Your task to perform on an android device: change notification settings in the gmail app Image 0: 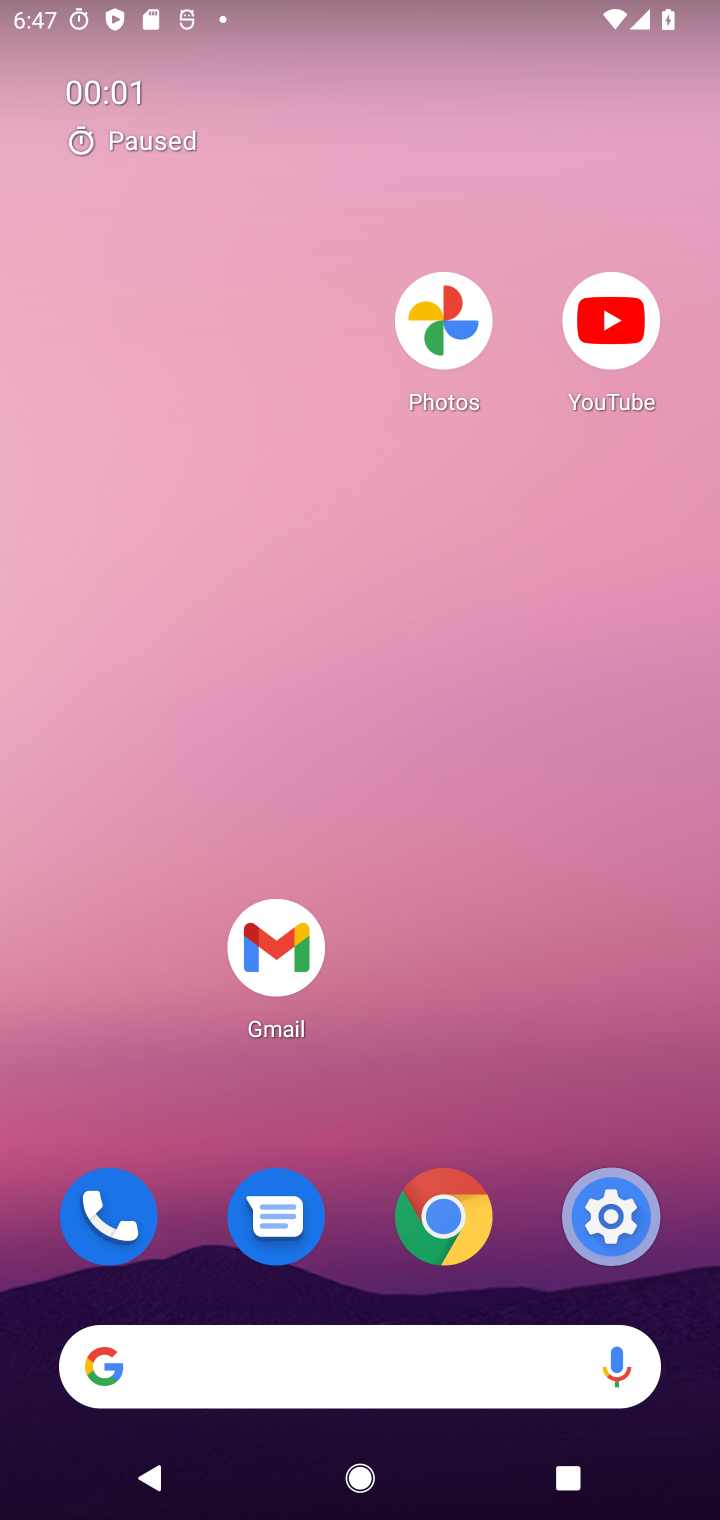
Step 0: drag from (599, 1086) to (495, 246)
Your task to perform on an android device: change notification settings in the gmail app Image 1: 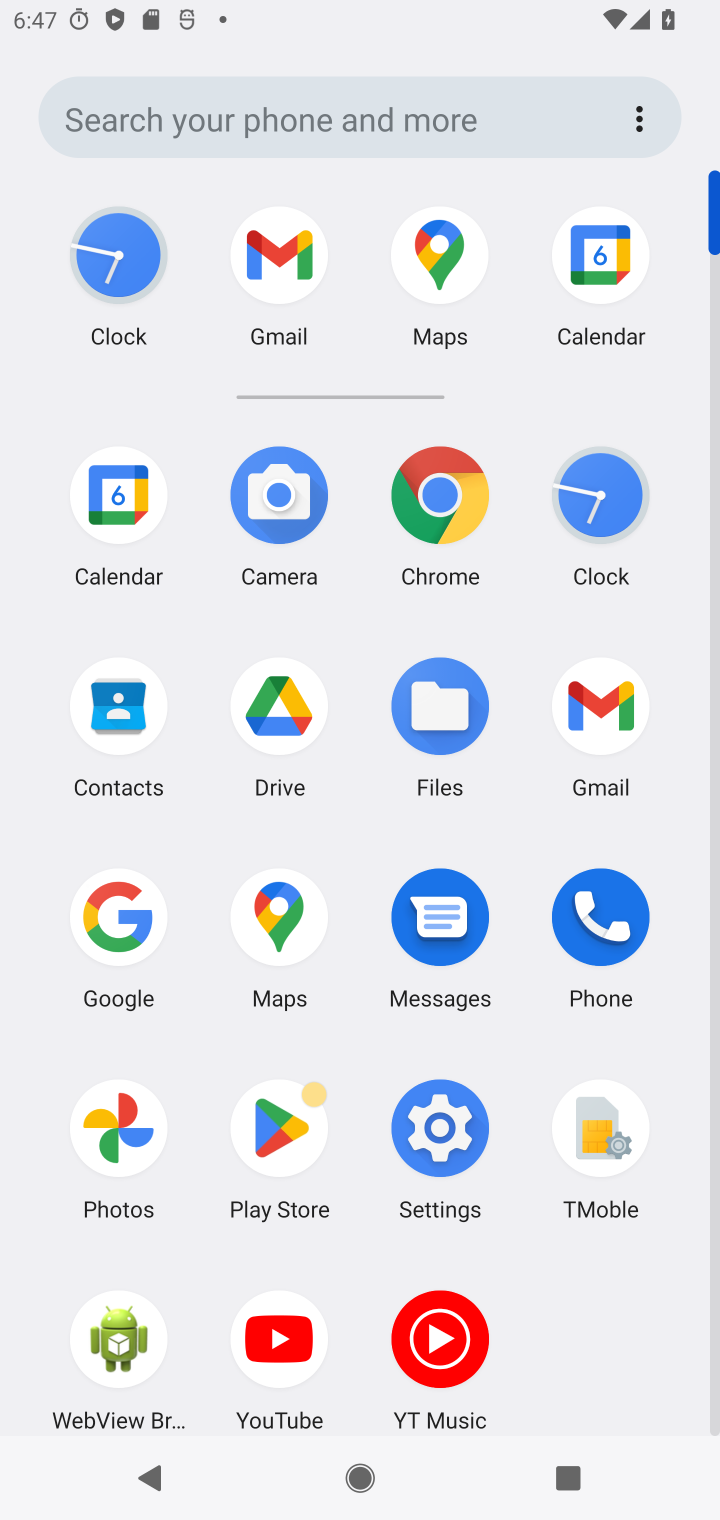
Step 1: click (594, 720)
Your task to perform on an android device: change notification settings in the gmail app Image 2: 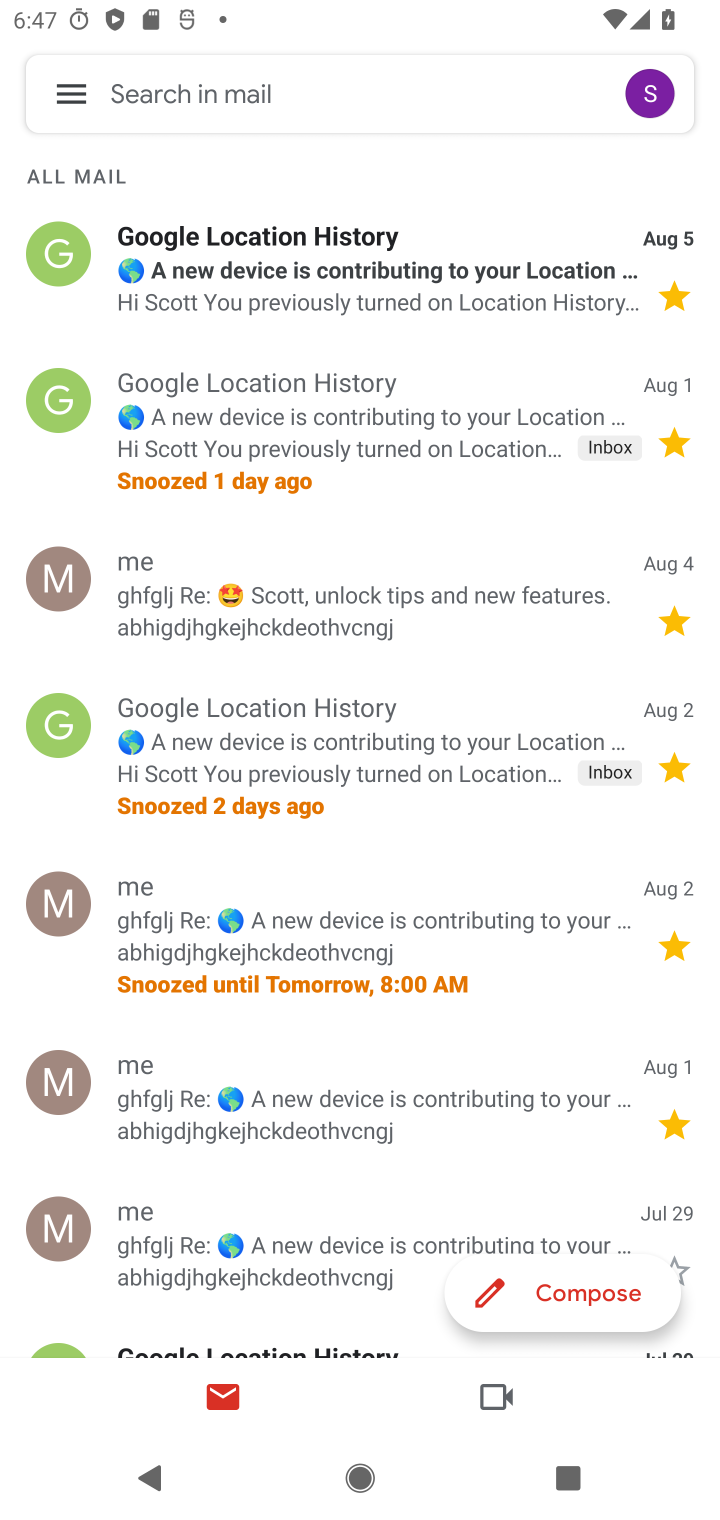
Step 2: click (59, 80)
Your task to perform on an android device: change notification settings in the gmail app Image 3: 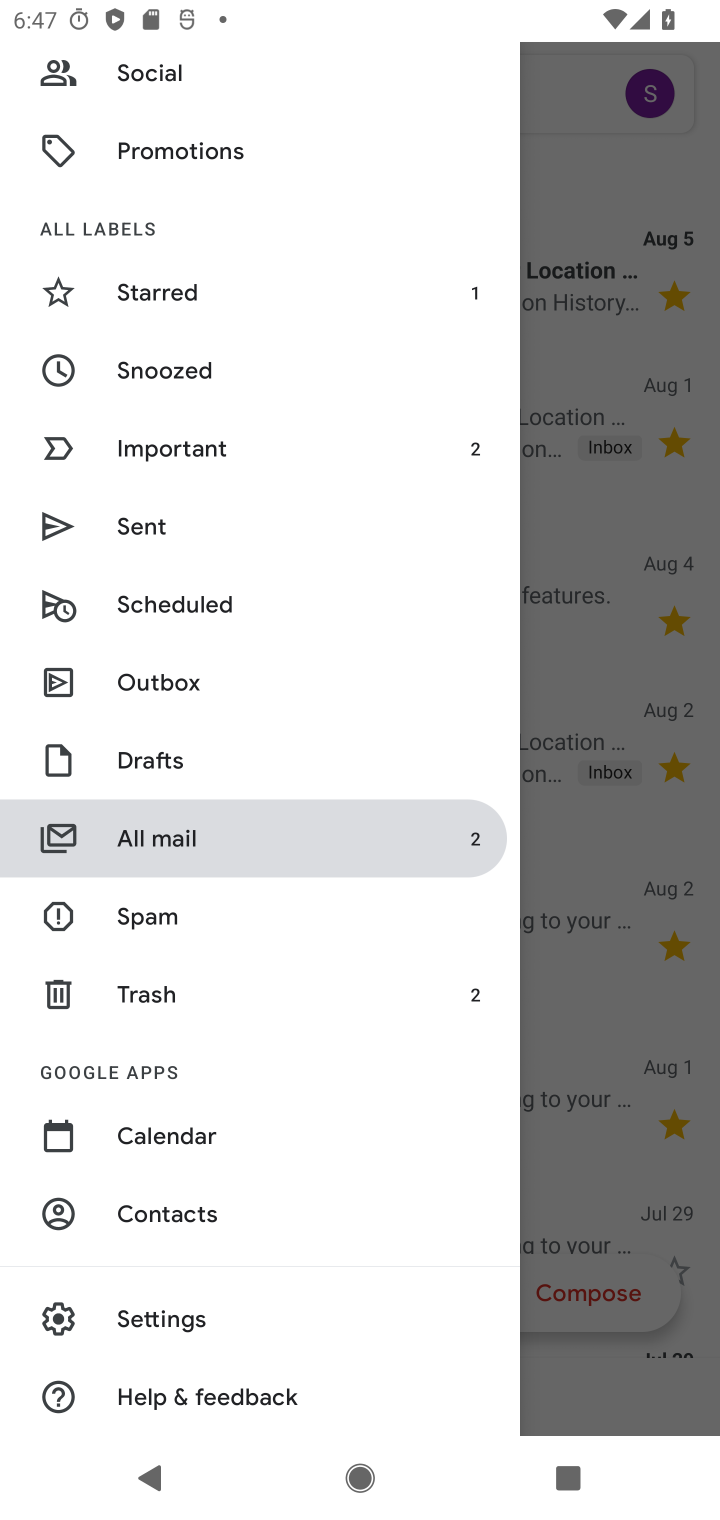
Step 3: click (156, 1311)
Your task to perform on an android device: change notification settings in the gmail app Image 4: 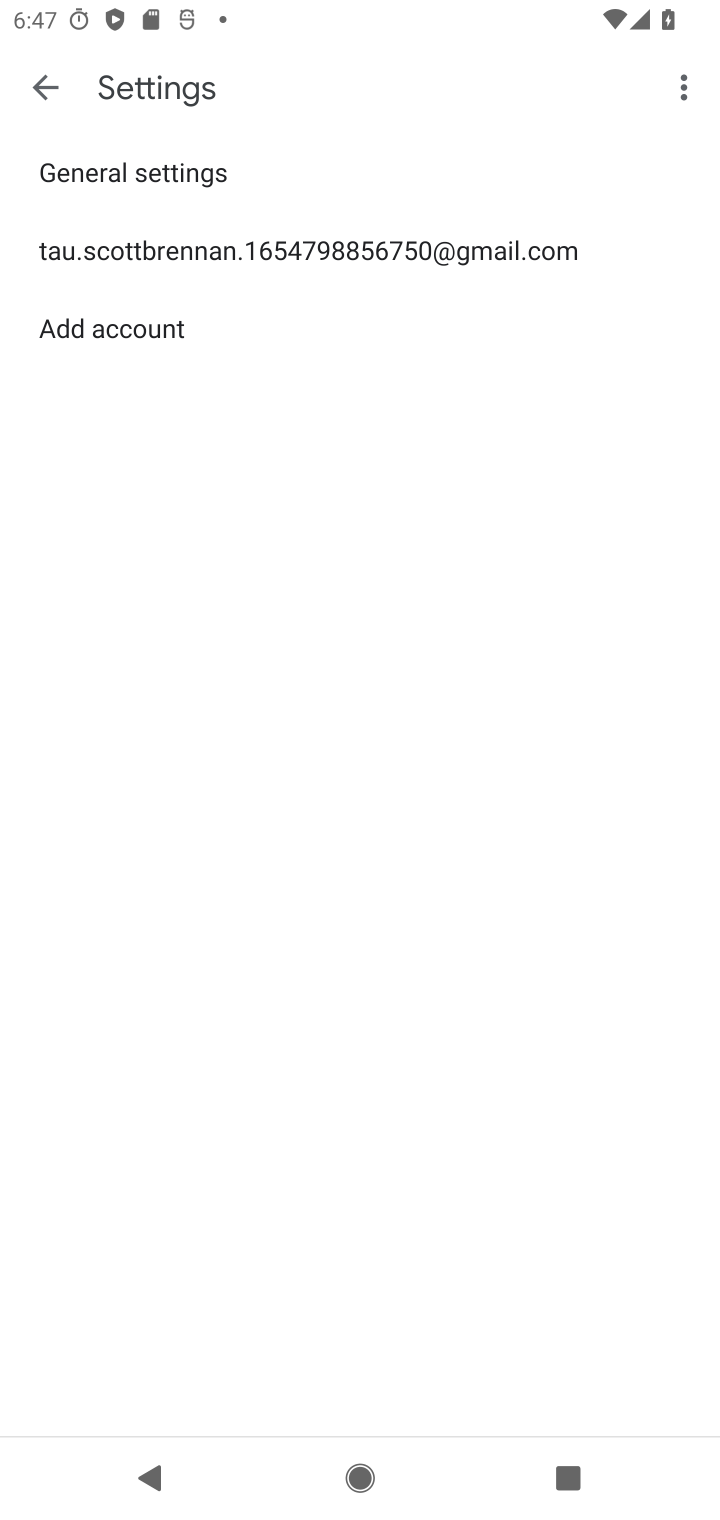
Step 4: click (312, 255)
Your task to perform on an android device: change notification settings in the gmail app Image 5: 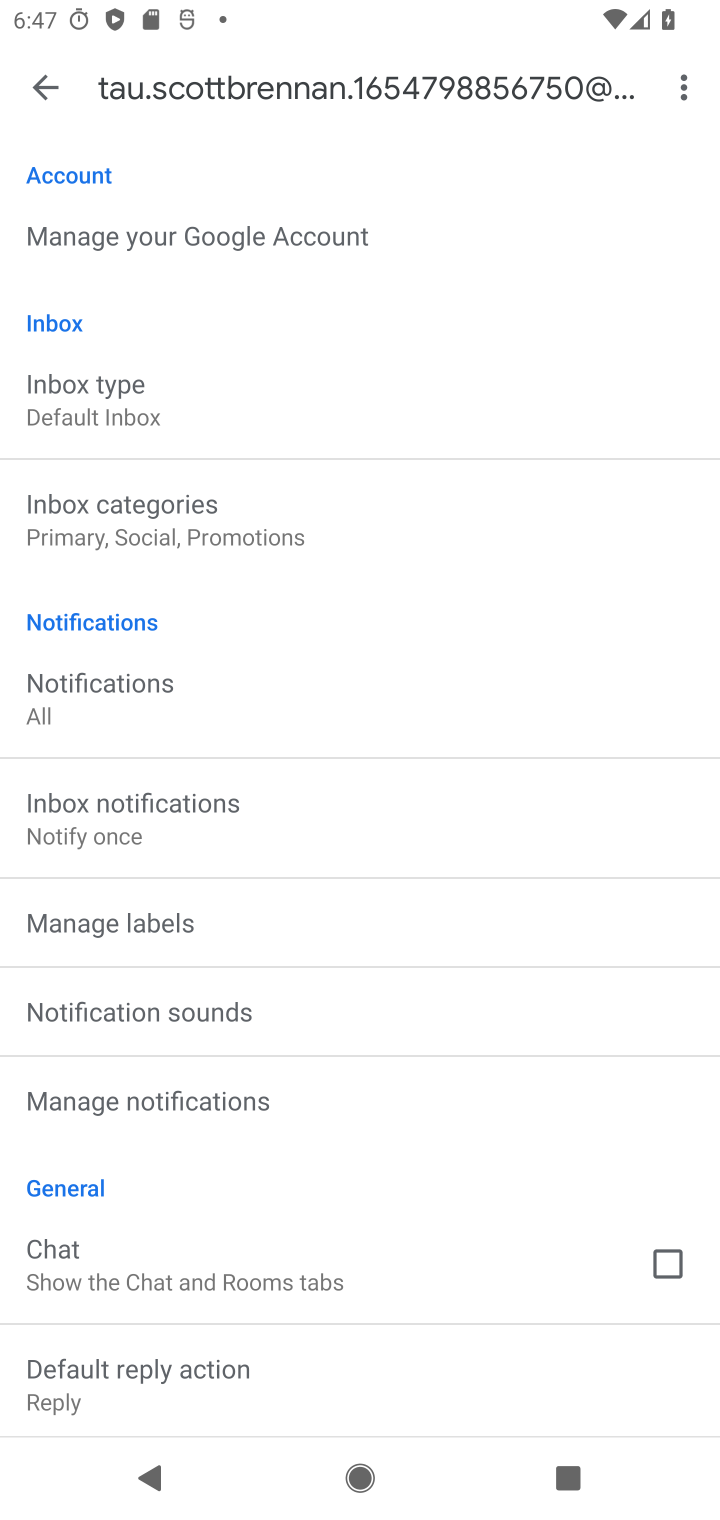
Step 5: click (169, 1119)
Your task to perform on an android device: change notification settings in the gmail app Image 6: 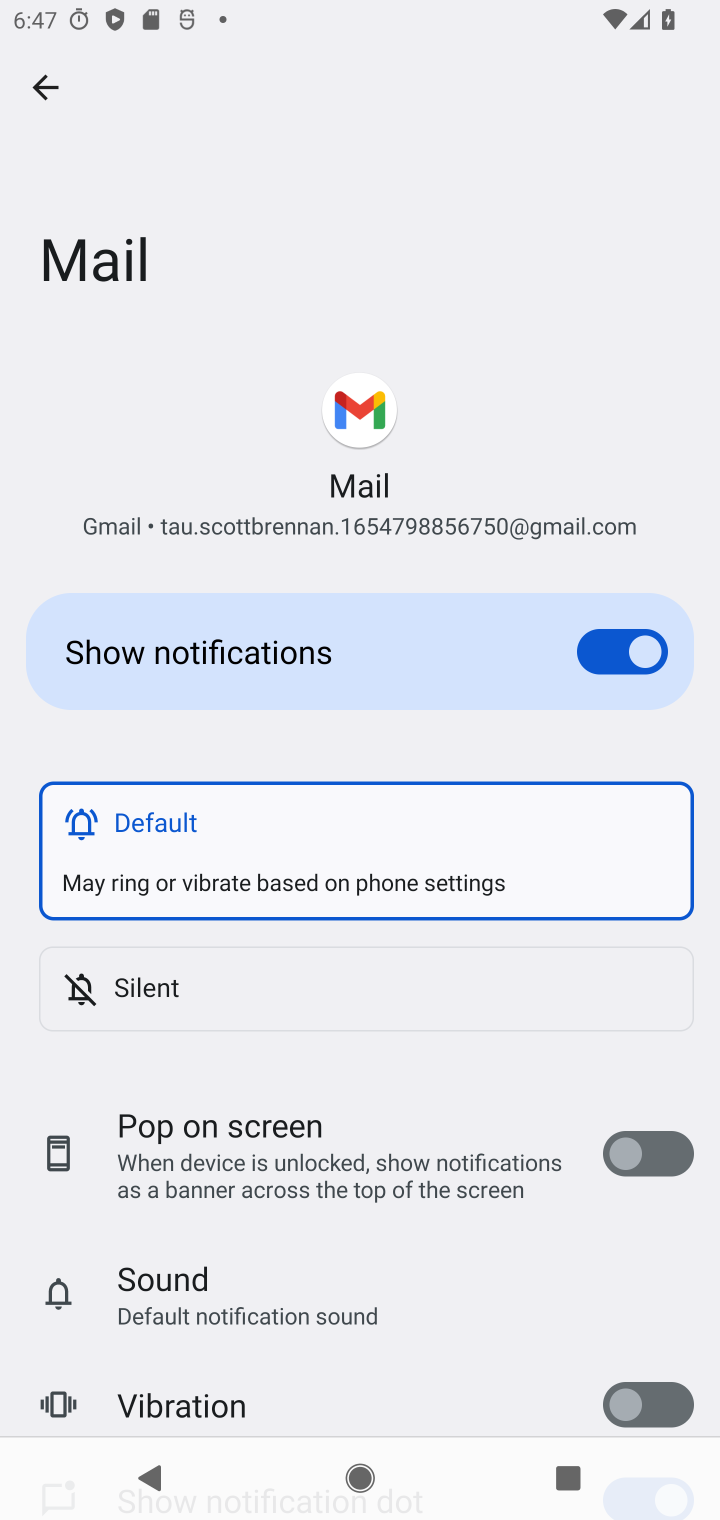
Step 6: click (633, 648)
Your task to perform on an android device: change notification settings in the gmail app Image 7: 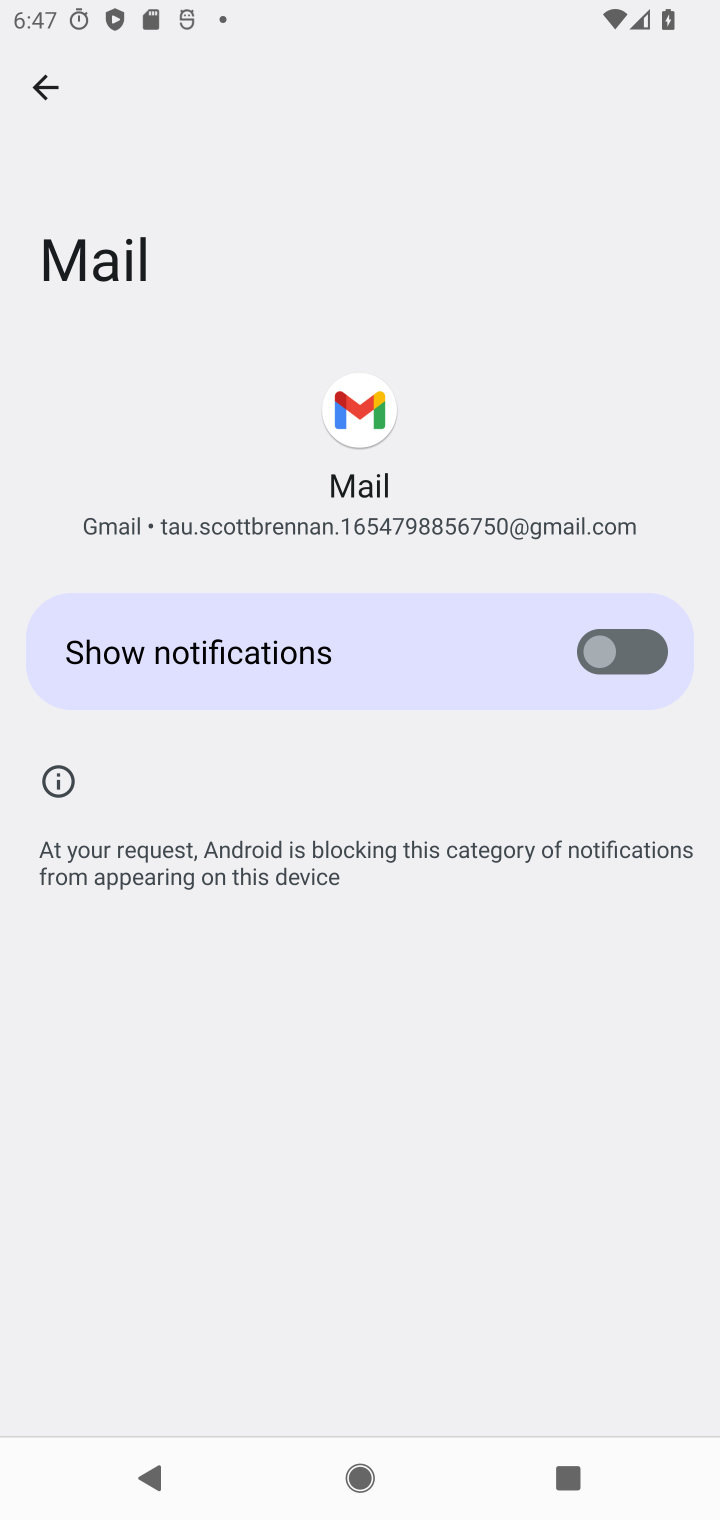
Step 7: task complete